Your task to perform on an android device: toggle notifications settings in the gmail app Image 0: 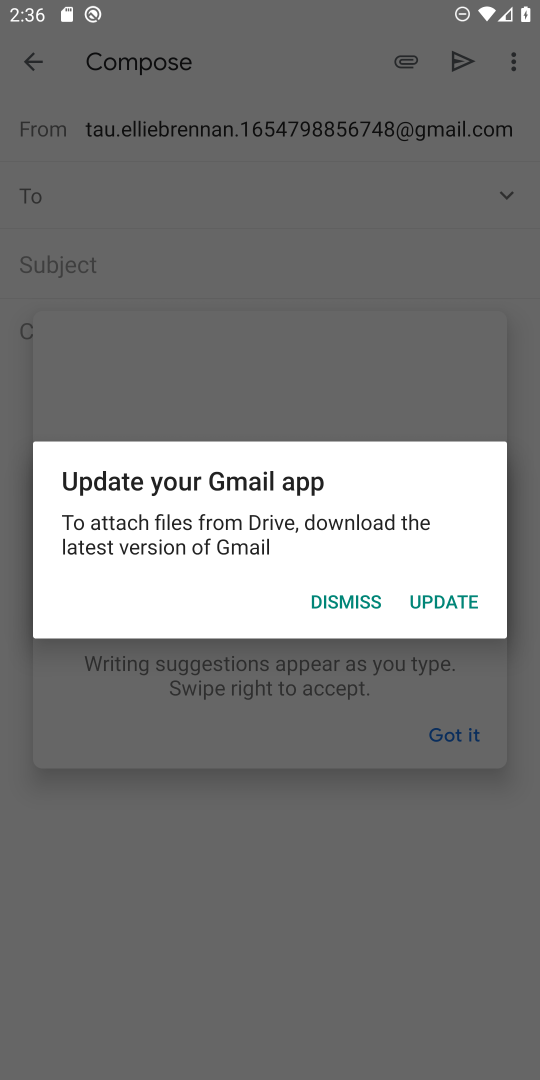
Step 0: press home button
Your task to perform on an android device: toggle notifications settings in the gmail app Image 1: 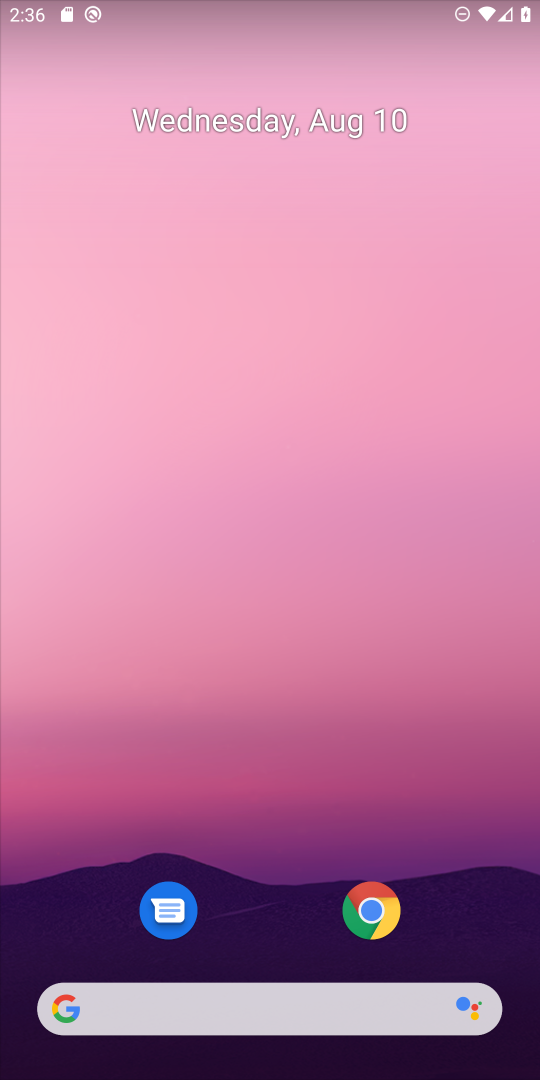
Step 1: drag from (251, 893) to (77, 62)
Your task to perform on an android device: toggle notifications settings in the gmail app Image 2: 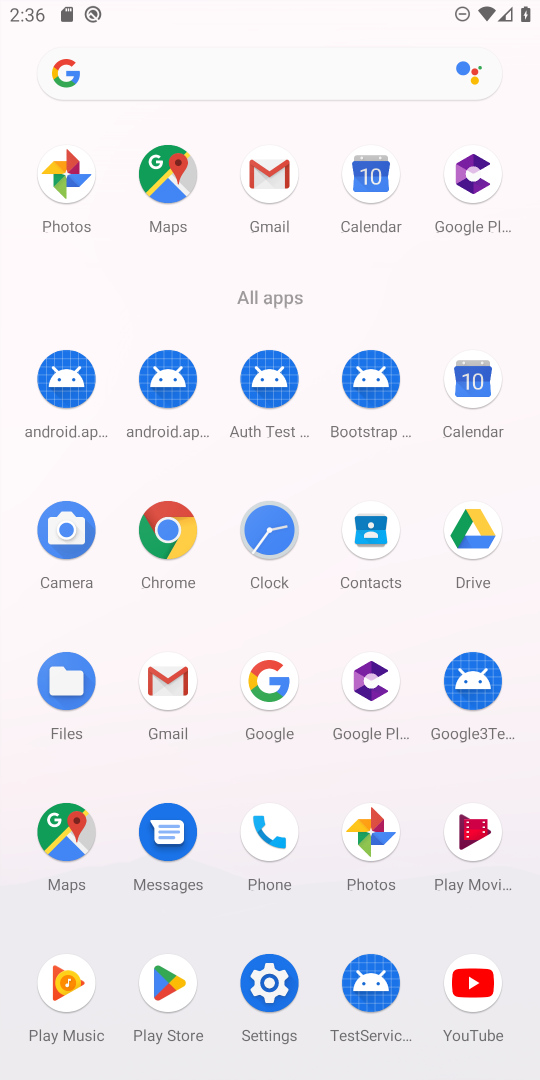
Step 2: click (266, 172)
Your task to perform on an android device: toggle notifications settings in the gmail app Image 3: 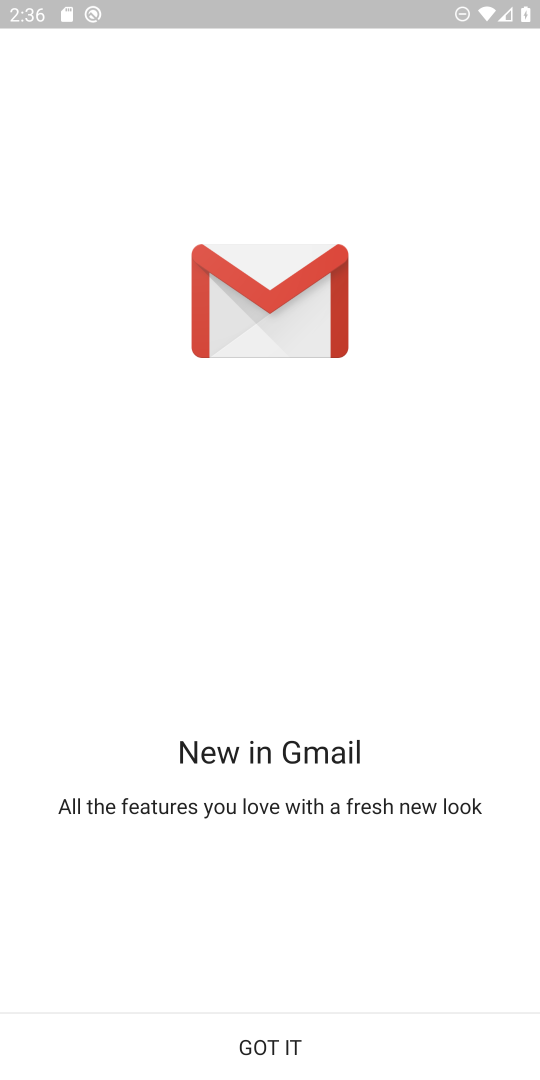
Step 3: click (346, 1039)
Your task to perform on an android device: toggle notifications settings in the gmail app Image 4: 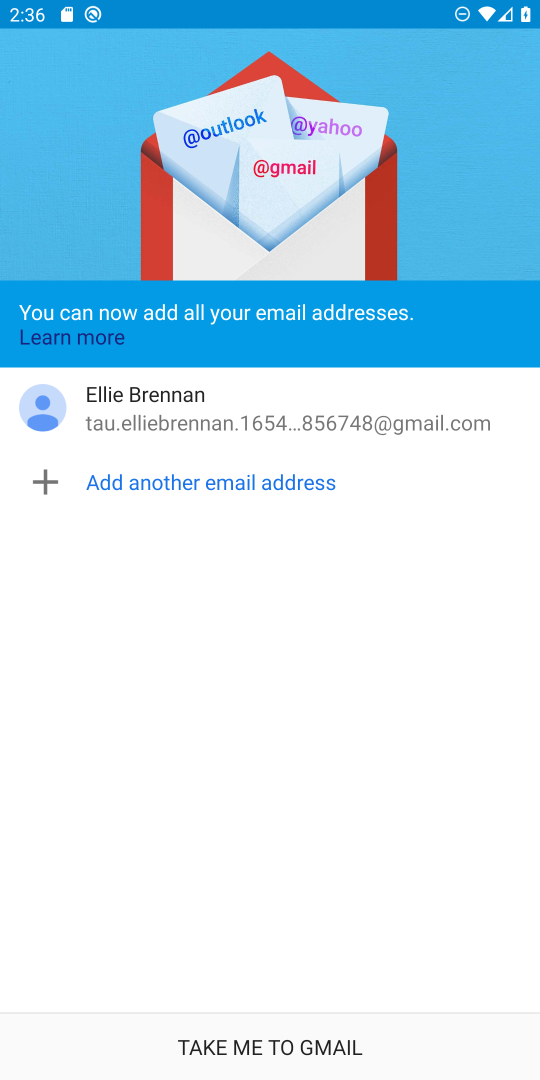
Step 4: click (261, 1058)
Your task to perform on an android device: toggle notifications settings in the gmail app Image 5: 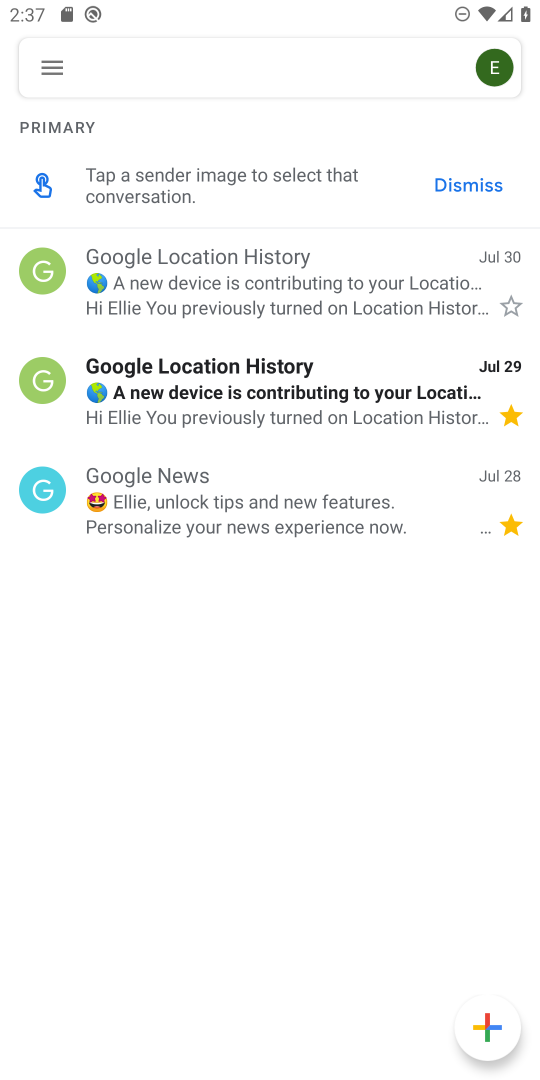
Step 5: click (51, 63)
Your task to perform on an android device: toggle notifications settings in the gmail app Image 6: 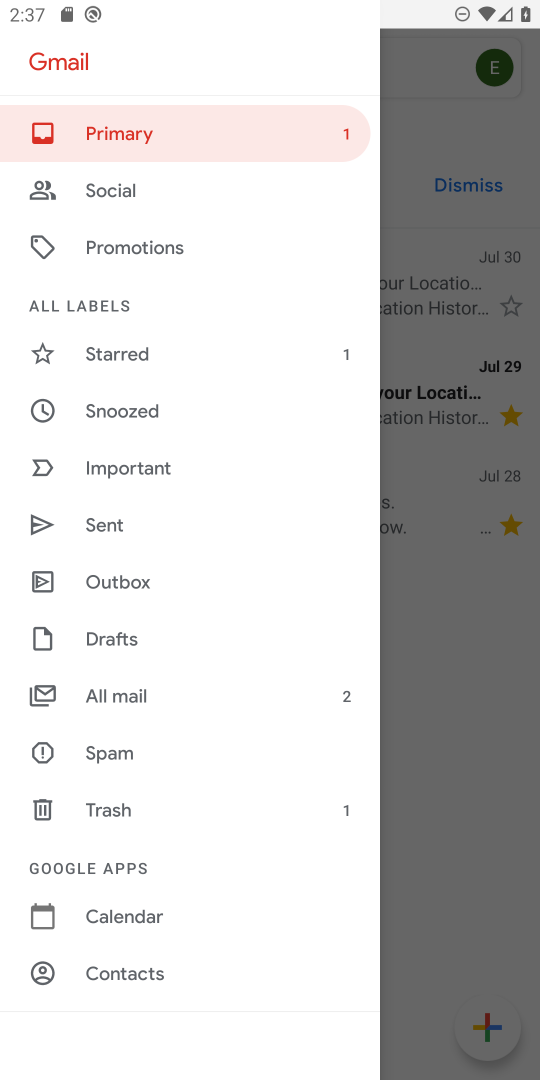
Step 6: drag from (148, 935) to (62, 419)
Your task to perform on an android device: toggle notifications settings in the gmail app Image 7: 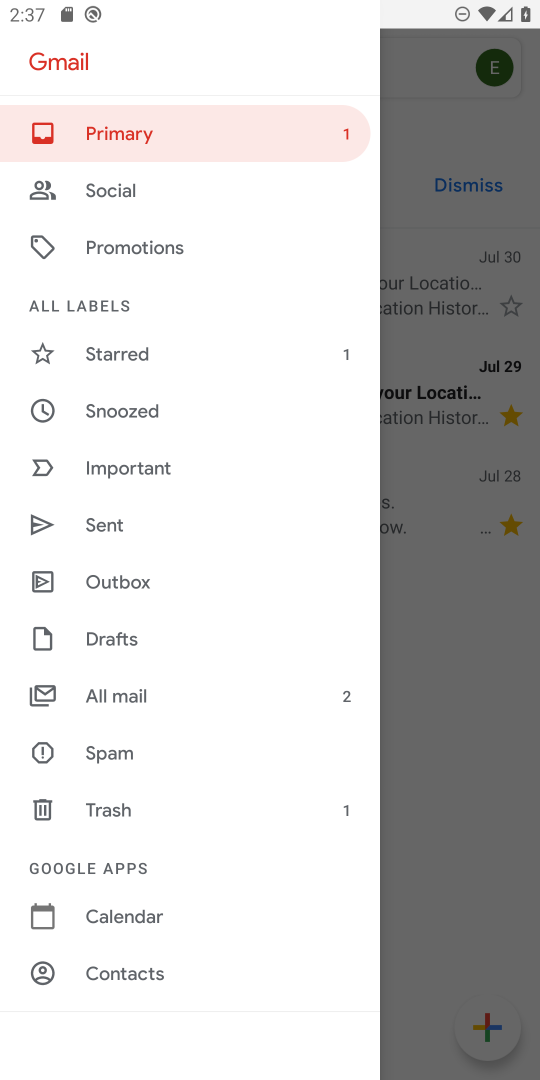
Step 7: drag from (194, 922) to (292, 218)
Your task to perform on an android device: toggle notifications settings in the gmail app Image 8: 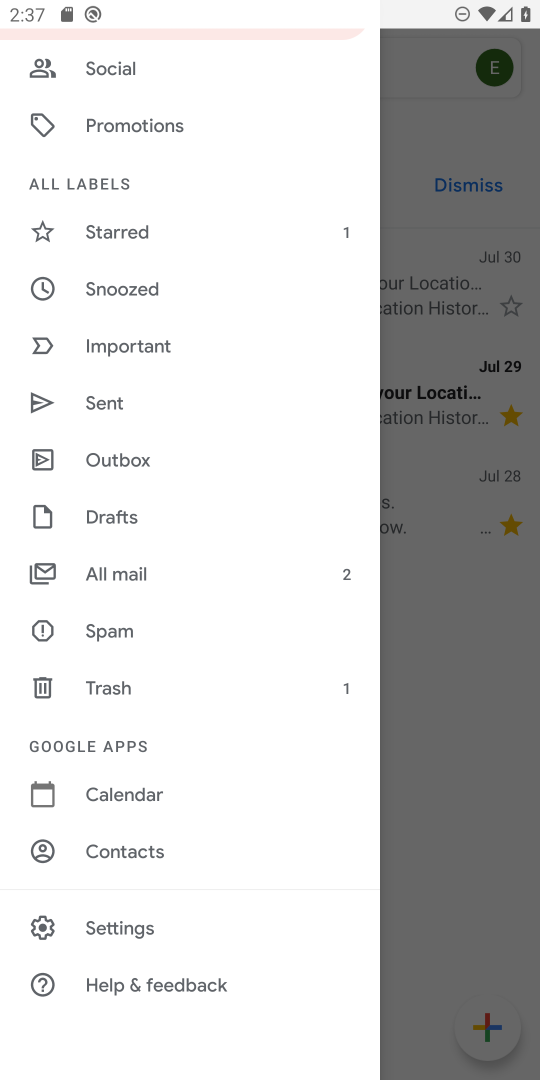
Step 8: click (115, 936)
Your task to perform on an android device: toggle notifications settings in the gmail app Image 9: 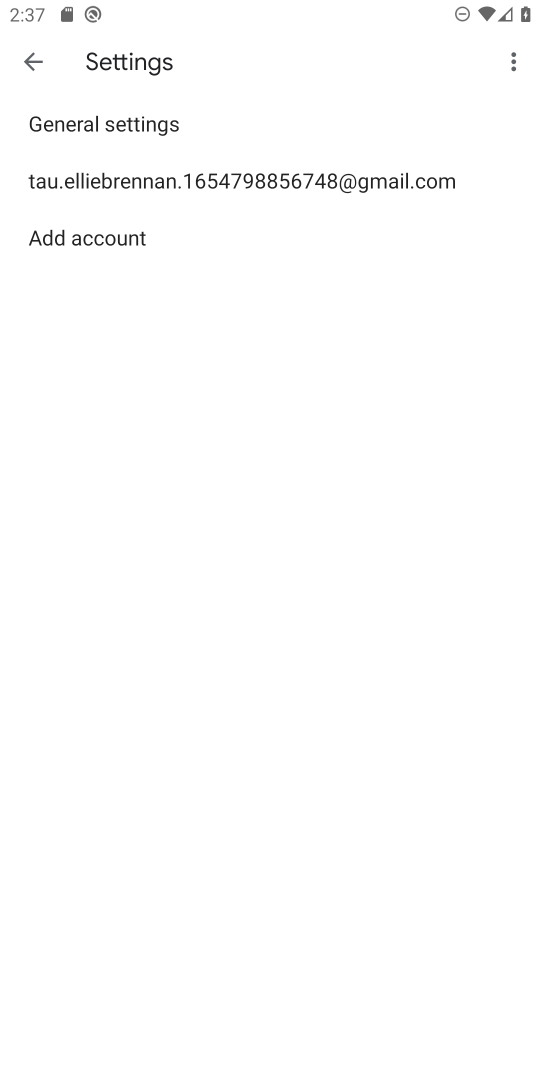
Step 9: click (132, 124)
Your task to perform on an android device: toggle notifications settings in the gmail app Image 10: 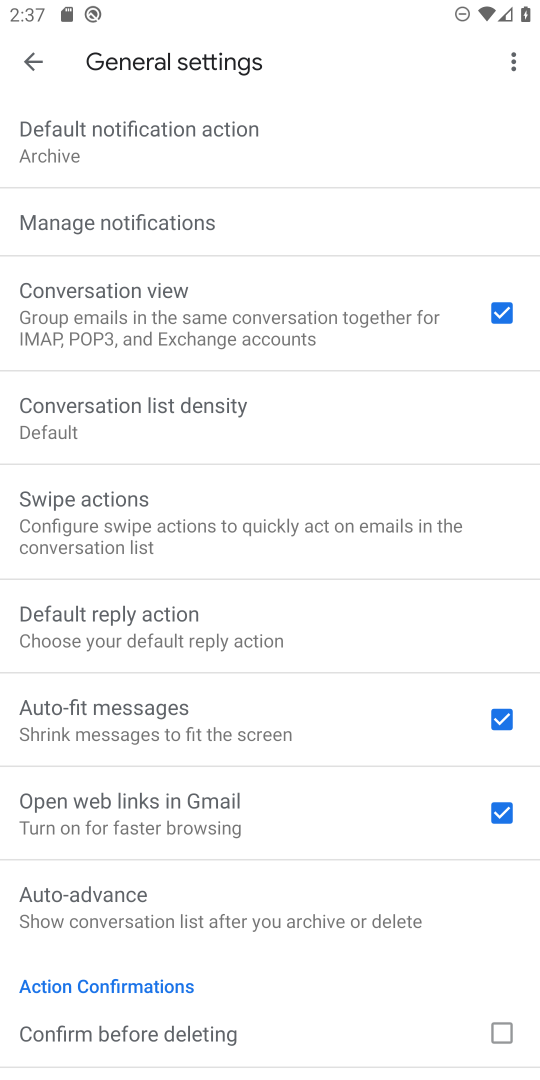
Step 10: click (158, 235)
Your task to perform on an android device: toggle notifications settings in the gmail app Image 11: 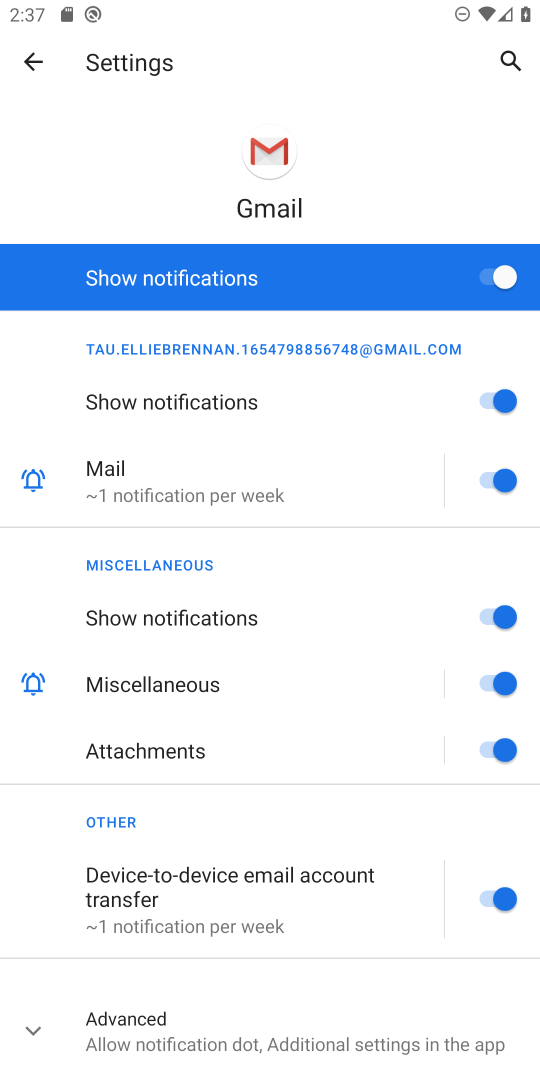
Step 11: click (492, 274)
Your task to perform on an android device: toggle notifications settings in the gmail app Image 12: 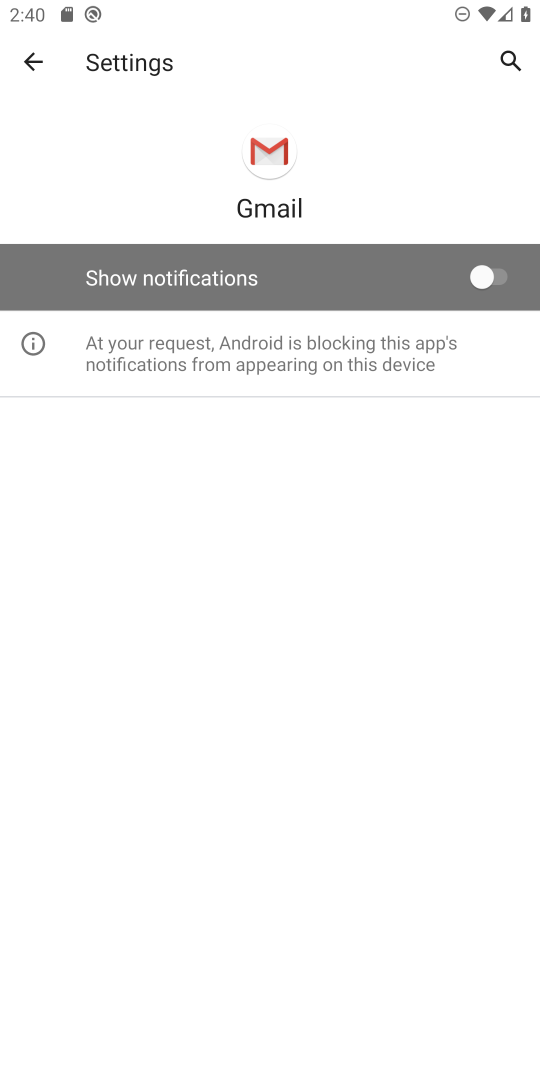
Step 12: task complete